Your task to perform on an android device: Go to network settings Image 0: 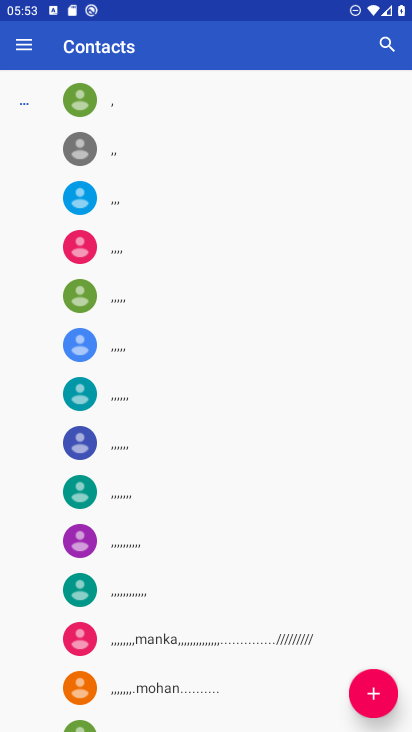
Step 0: press home button
Your task to perform on an android device: Go to network settings Image 1: 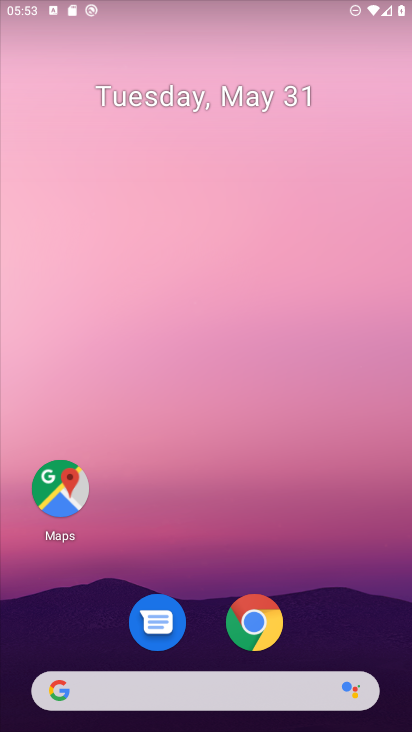
Step 1: drag from (190, 648) to (338, 1)
Your task to perform on an android device: Go to network settings Image 2: 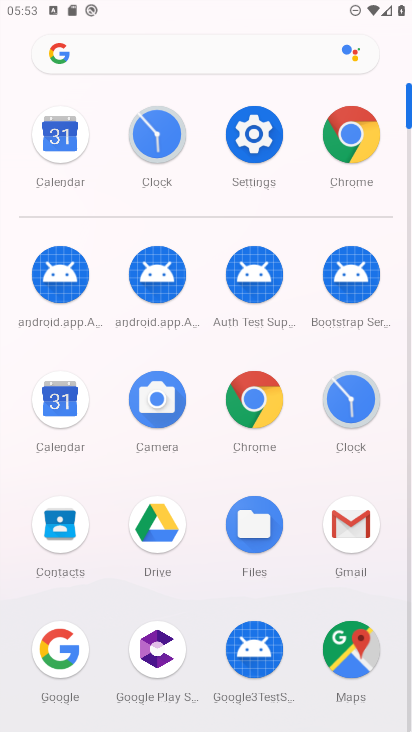
Step 2: click (249, 124)
Your task to perform on an android device: Go to network settings Image 3: 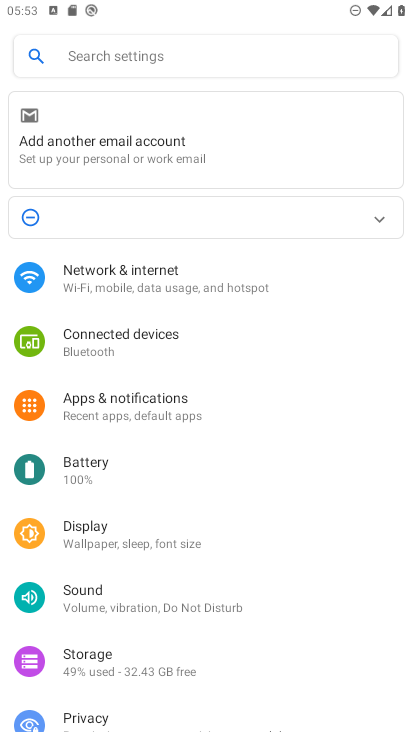
Step 3: click (160, 292)
Your task to perform on an android device: Go to network settings Image 4: 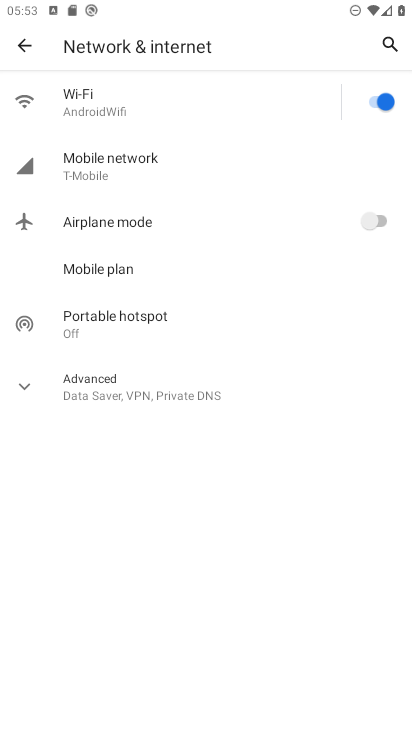
Step 4: task complete